Your task to perform on an android device: Add "corsair k70" to the cart on target Image 0: 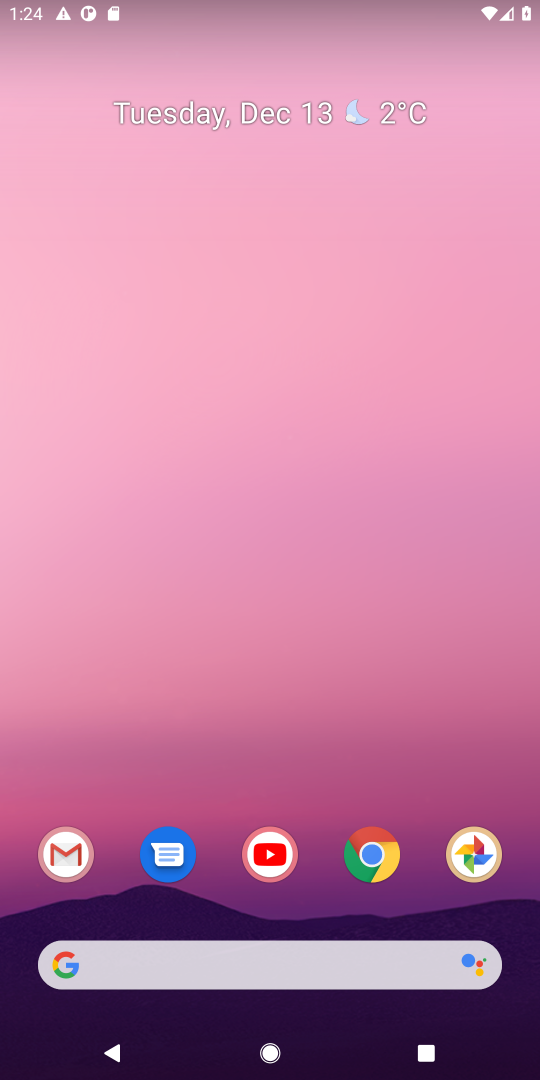
Step 0: click (290, 948)
Your task to perform on an android device: Add "corsair k70" to the cart on target Image 1: 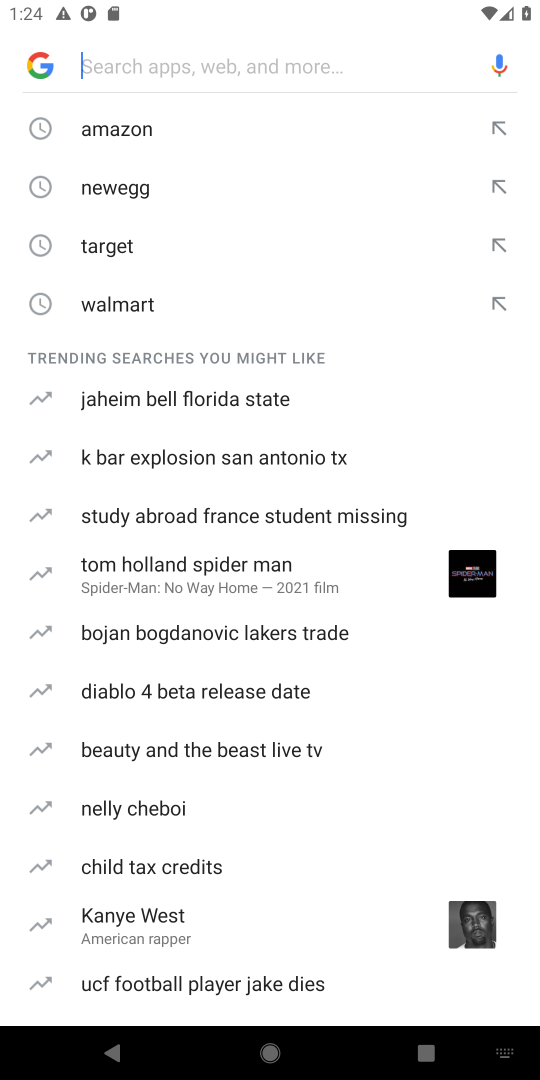
Step 1: type "cosrair"
Your task to perform on an android device: Add "corsair k70" to the cart on target Image 2: 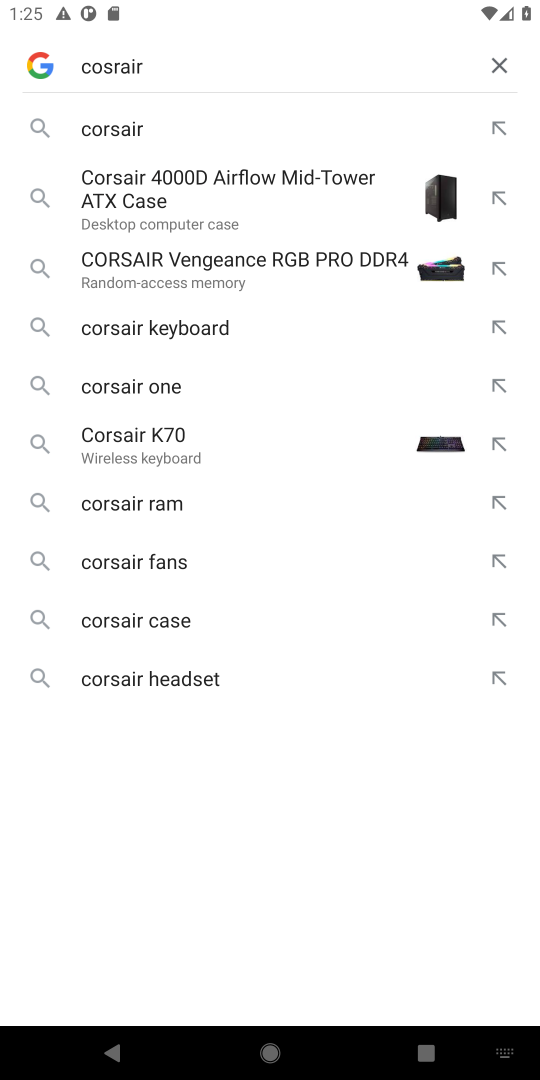
Step 2: click (500, 76)
Your task to perform on an android device: Add "corsair k70" to the cart on target Image 3: 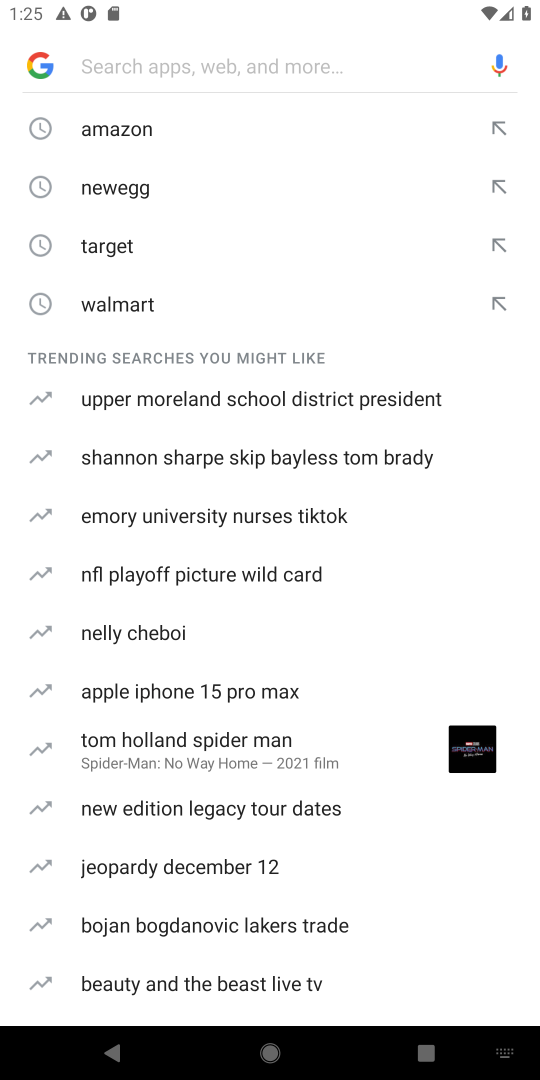
Step 3: click (169, 258)
Your task to perform on an android device: Add "corsair k70" to the cart on target Image 4: 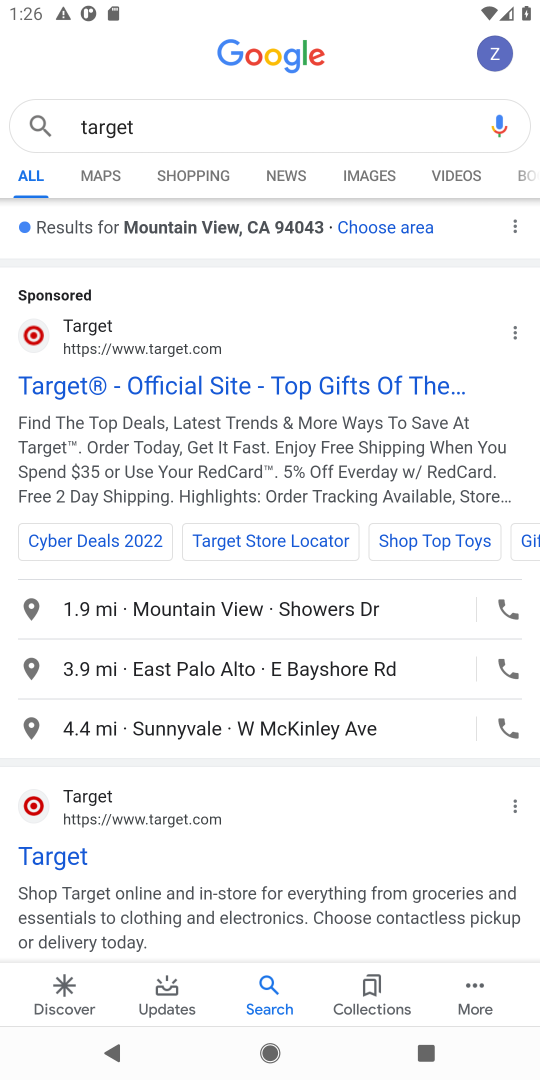
Step 4: click (179, 363)
Your task to perform on an android device: Add "corsair k70" to the cart on target Image 5: 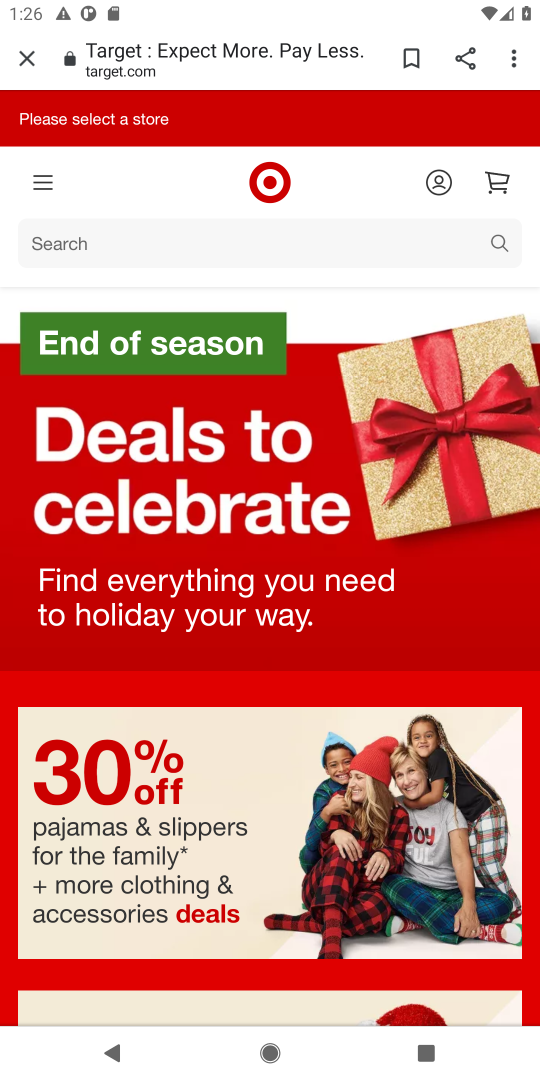
Step 5: click (125, 256)
Your task to perform on an android device: Add "corsair k70" to the cart on target Image 6: 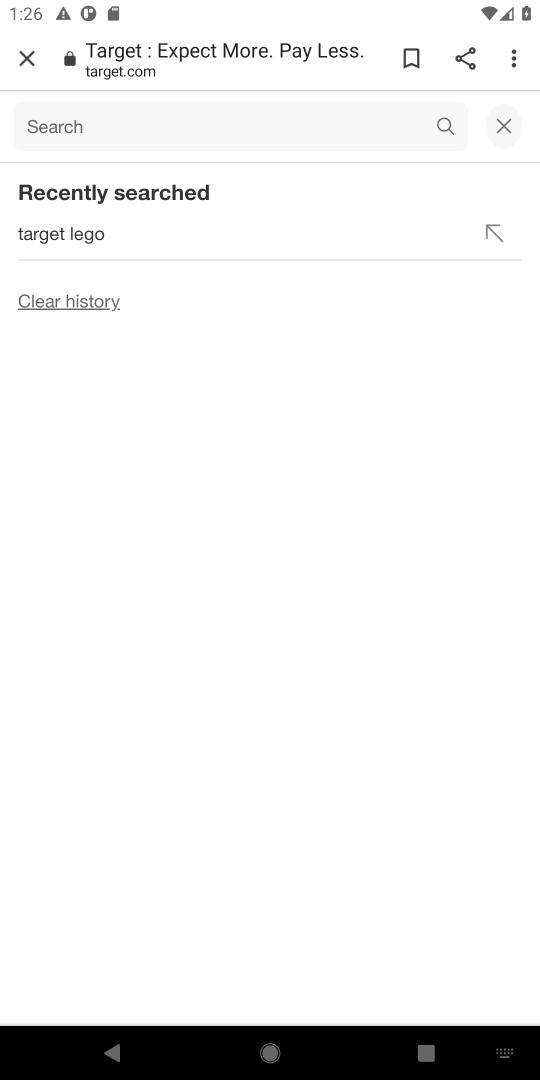
Step 6: type "corsair k70"
Your task to perform on an android device: Add "corsair k70" to the cart on target Image 7: 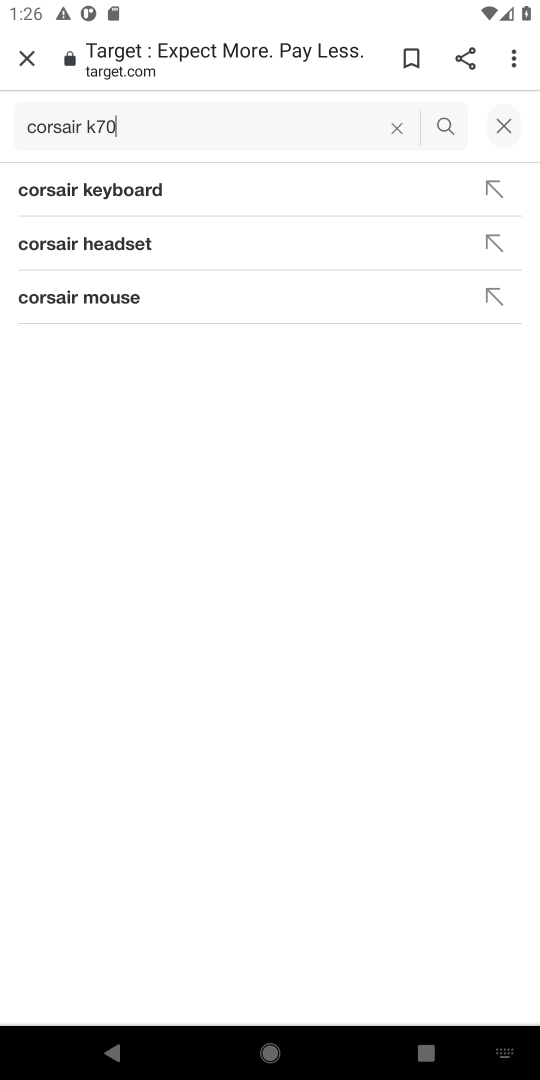
Step 7: click (448, 133)
Your task to perform on an android device: Add "corsair k70" to the cart on target Image 8: 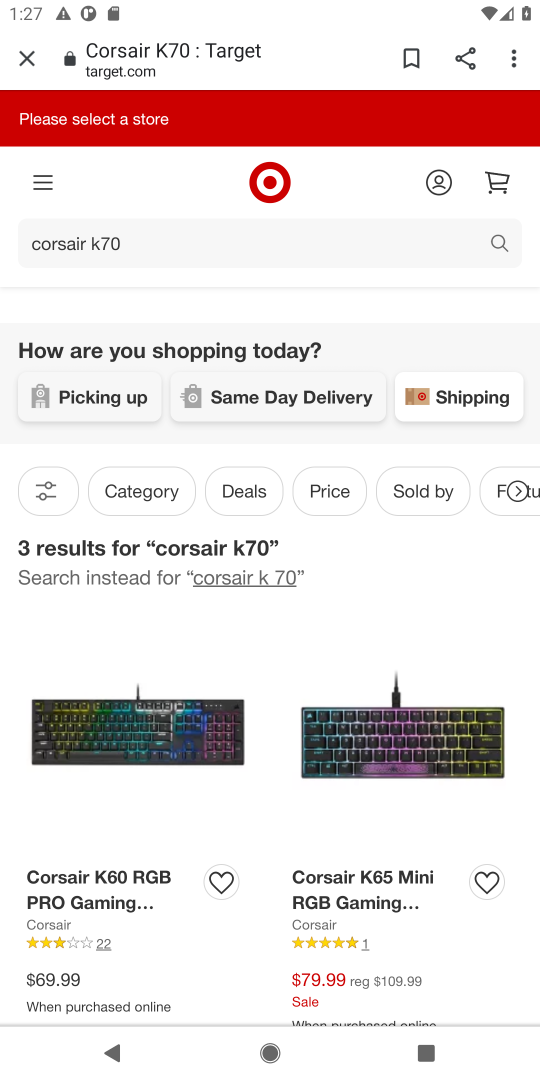
Step 8: click (170, 745)
Your task to perform on an android device: Add "corsair k70" to the cart on target Image 9: 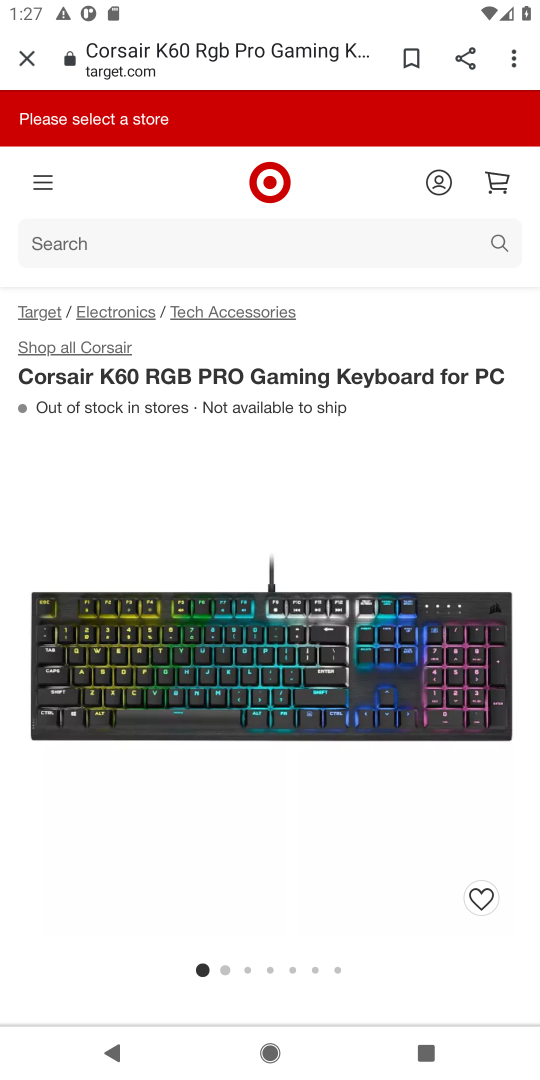
Step 9: drag from (308, 875) to (406, 246)
Your task to perform on an android device: Add "corsair k70" to the cart on target Image 10: 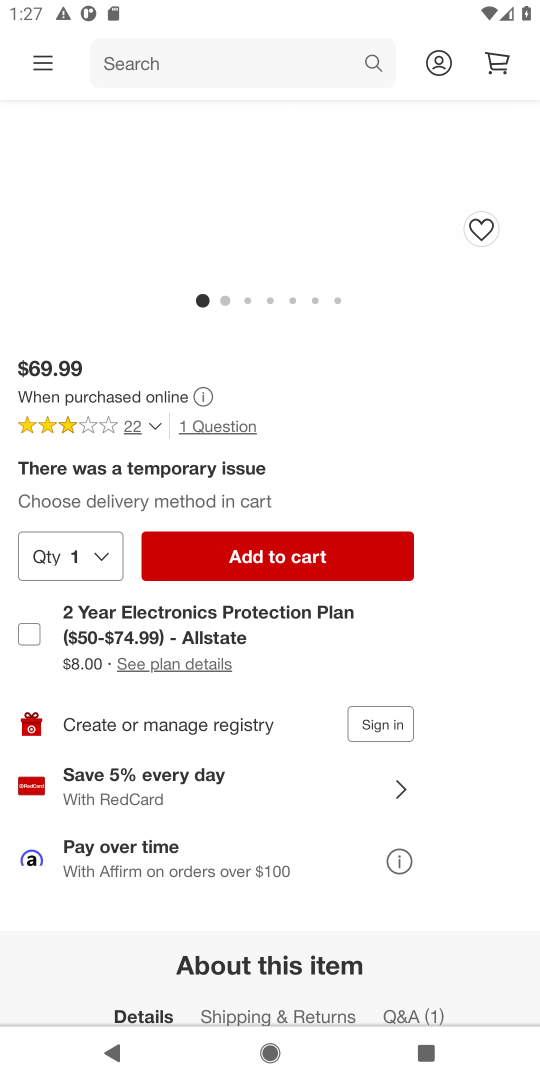
Step 10: click (314, 579)
Your task to perform on an android device: Add "corsair k70" to the cart on target Image 11: 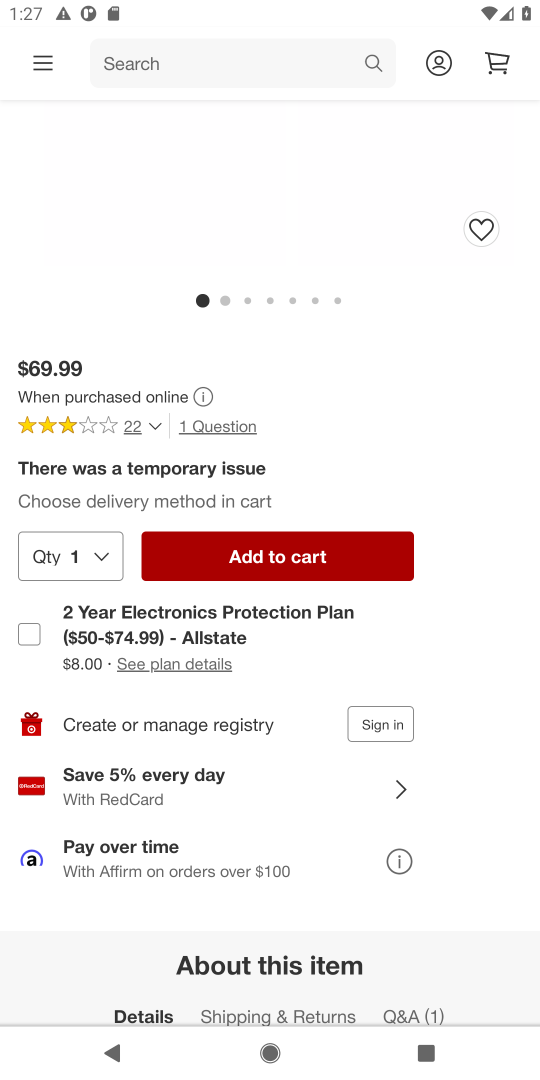
Step 11: task complete